Your task to perform on an android device: change notification settings in the gmail app Image 0: 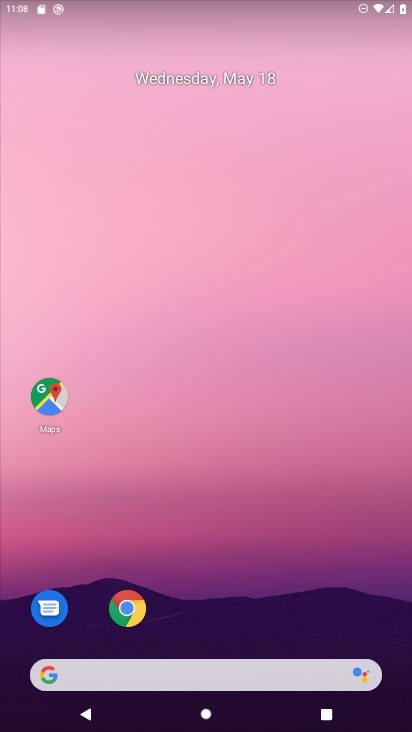
Step 0: drag from (214, 591) to (183, 85)
Your task to perform on an android device: change notification settings in the gmail app Image 1: 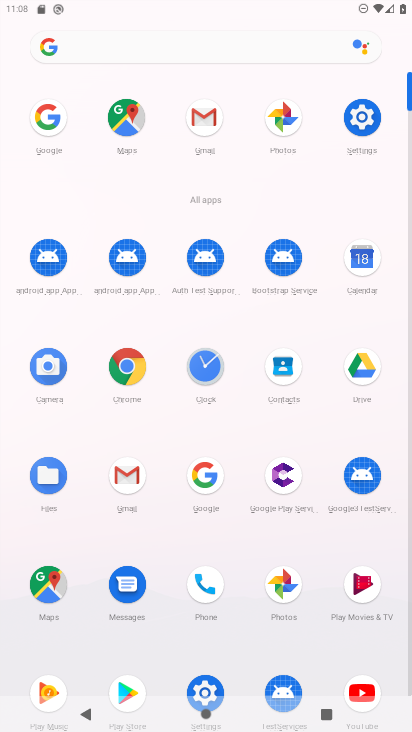
Step 1: click (205, 117)
Your task to perform on an android device: change notification settings in the gmail app Image 2: 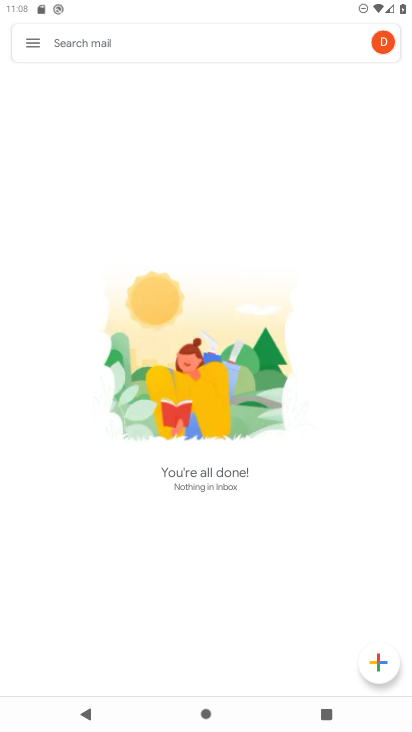
Step 2: click (31, 41)
Your task to perform on an android device: change notification settings in the gmail app Image 3: 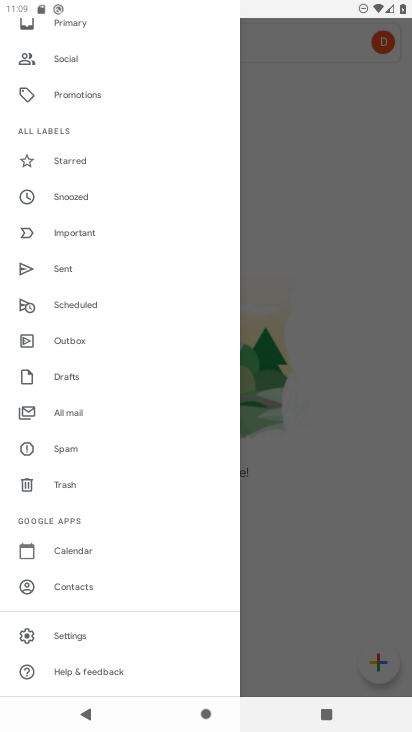
Step 3: click (75, 640)
Your task to perform on an android device: change notification settings in the gmail app Image 4: 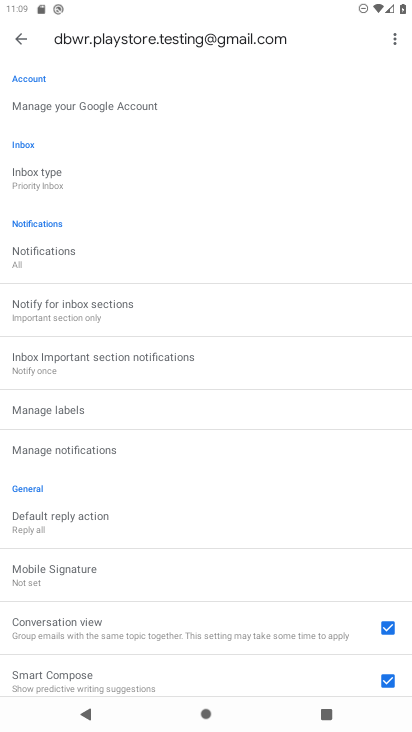
Step 4: click (84, 447)
Your task to perform on an android device: change notification settings in the gmail app Image 5: 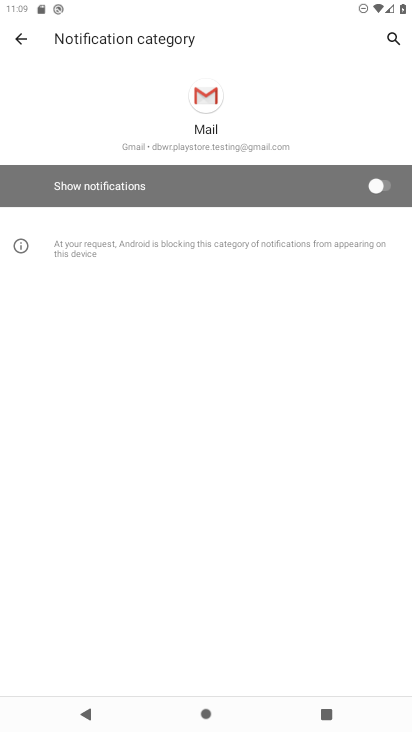
Step 5: click (374, 190)
Your task to perform on an android device: change notification settings in the gmail app Image 6: 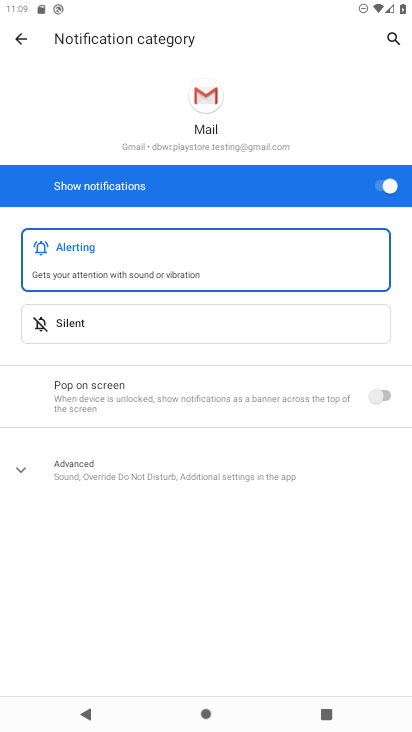
Step 6: task complete